Your task to perform on an android device: Go to Google maps Image 0: 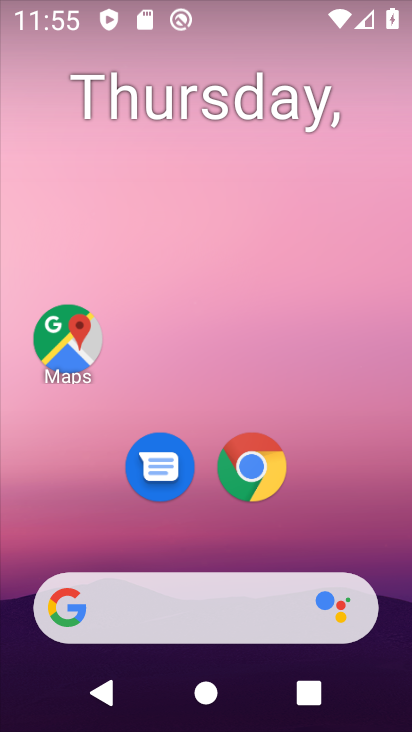
Step 0: click (61, 334)
Your task to perform on an android device: Go to Google maps Image 1: 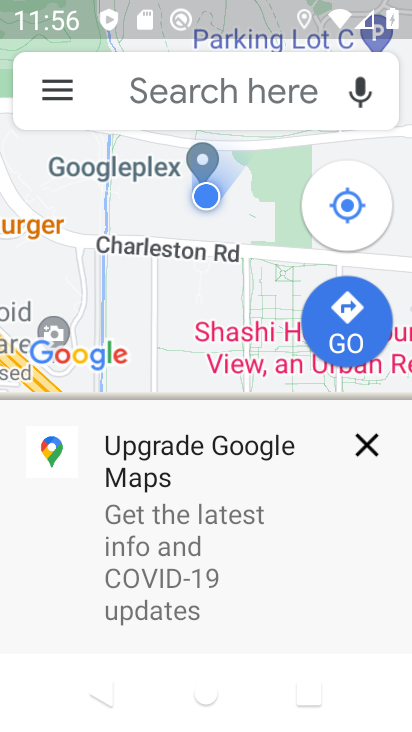
Step 1: click (365, 436)
Your task to perform on an android device: Go to Google maps Image 2: 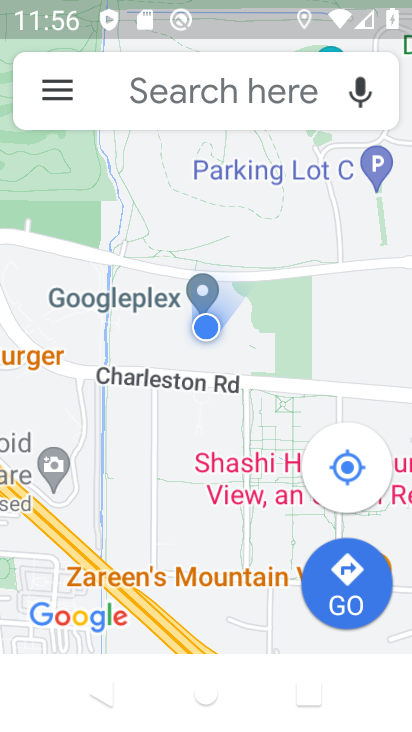
Step 2: task complete